Your task to perform on an android device: open app "Move to iOS" (install if not already installed) Image 0: 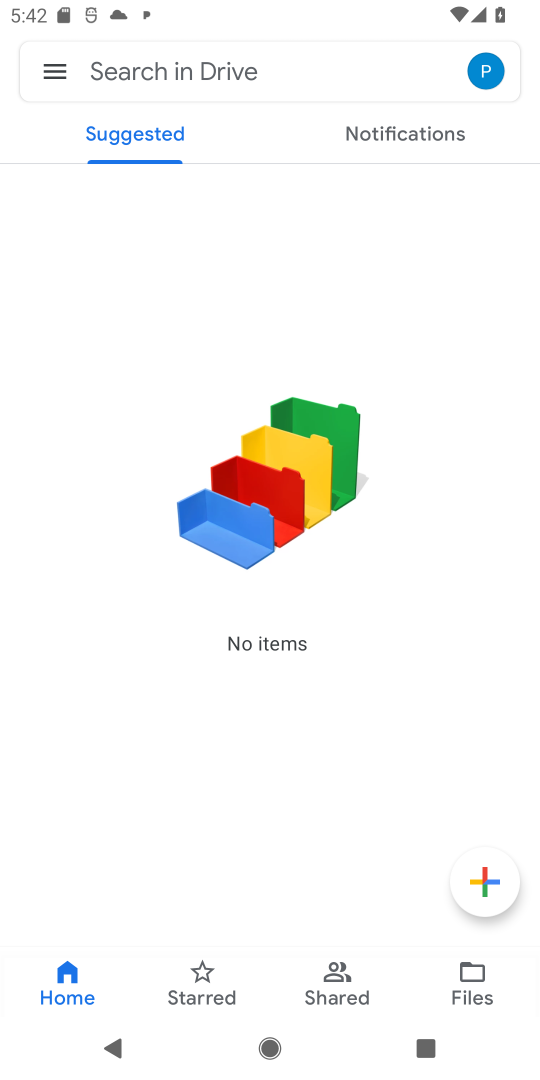
Step 0: press home button
Your task to perform on an android device: open app "Move to iOS" (install if not already installed) Image 1: 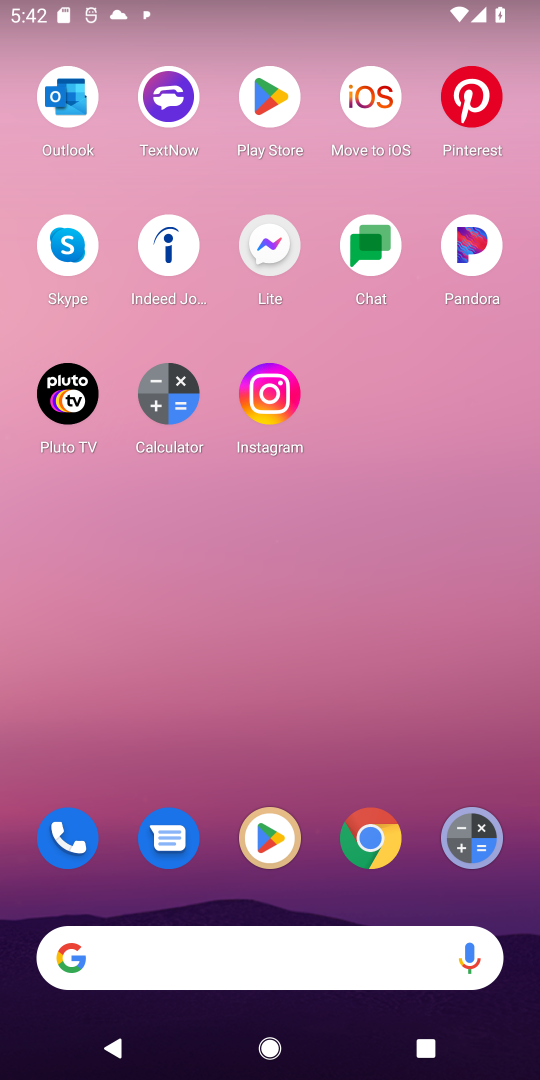
Step 1: click (260, 832)
Your task to perform on an android device: open app "Move to iOS" (install if not already installed) Image 2: 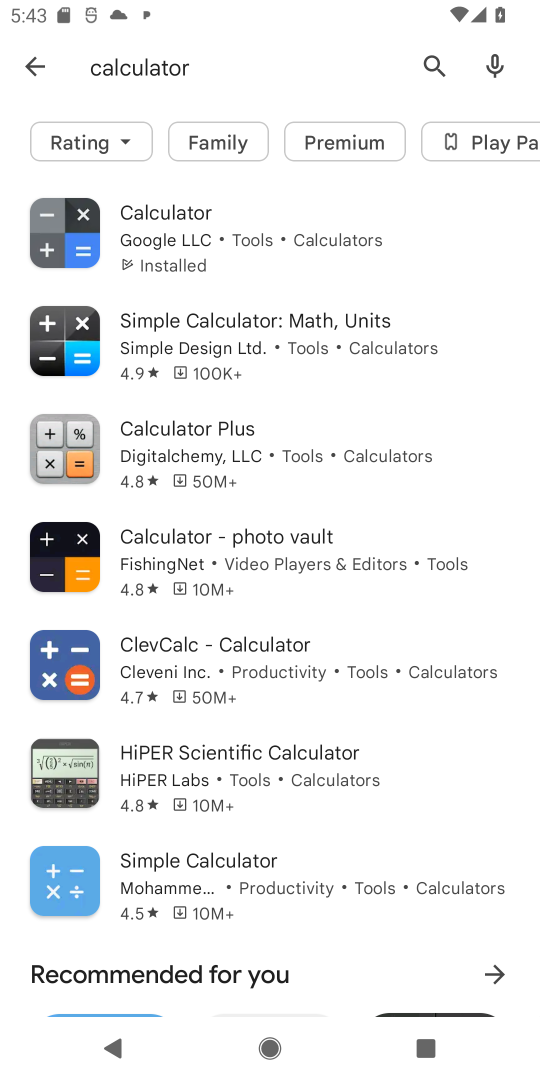
Step 2: click (434, 63)
Your task to perform on an android device: open app "Move to iOS" (install if not already installed) Image 3: 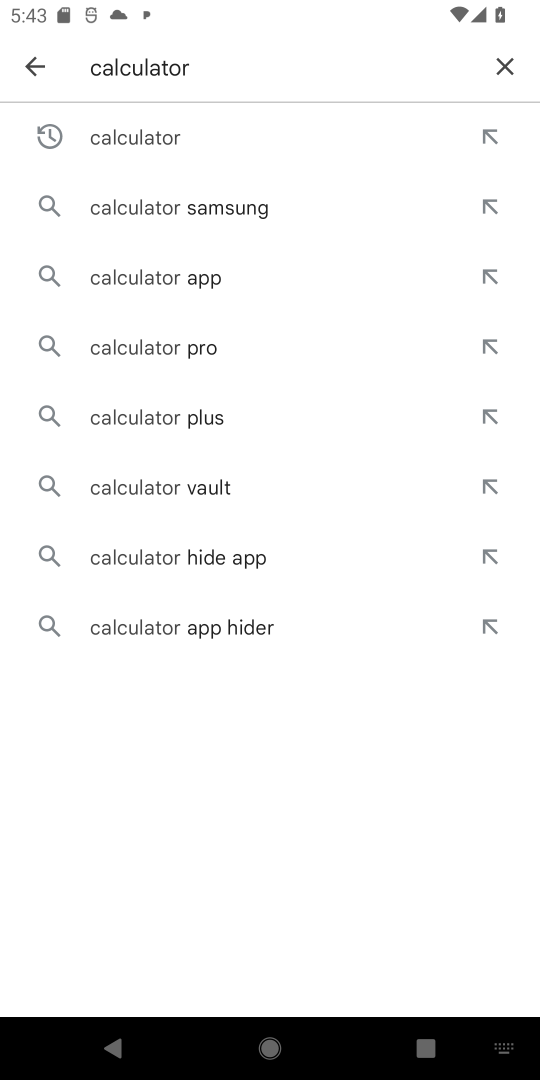
Step 3: click (508, 54)
Your task to perform on an android device: open app "Move to iOS" (install if not already installed) Image 4: 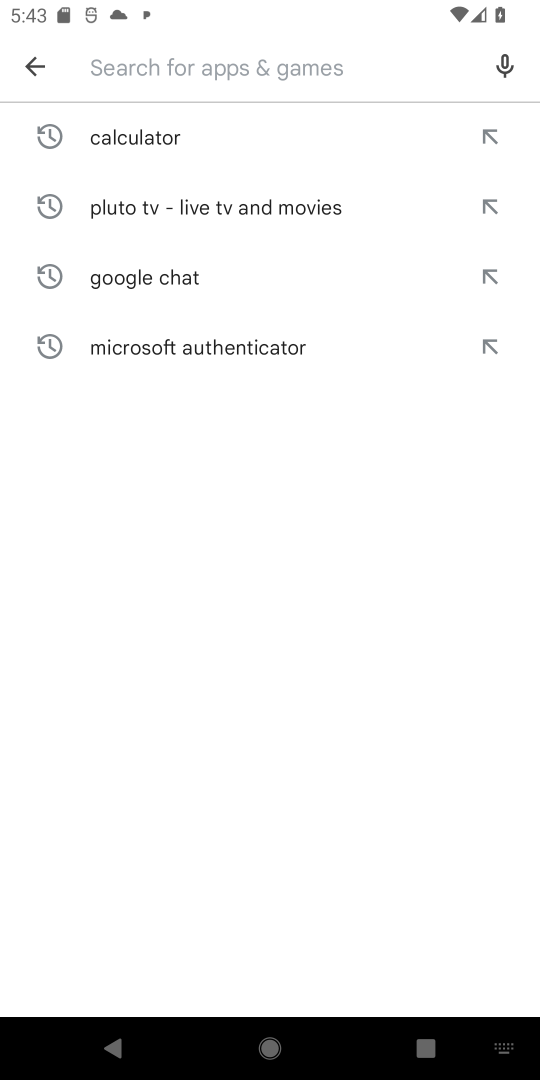
Step 4: type "Move to iOS"
Your task to perform on an android device: open app "Move to iOS" (install if not already installed) Image 5: 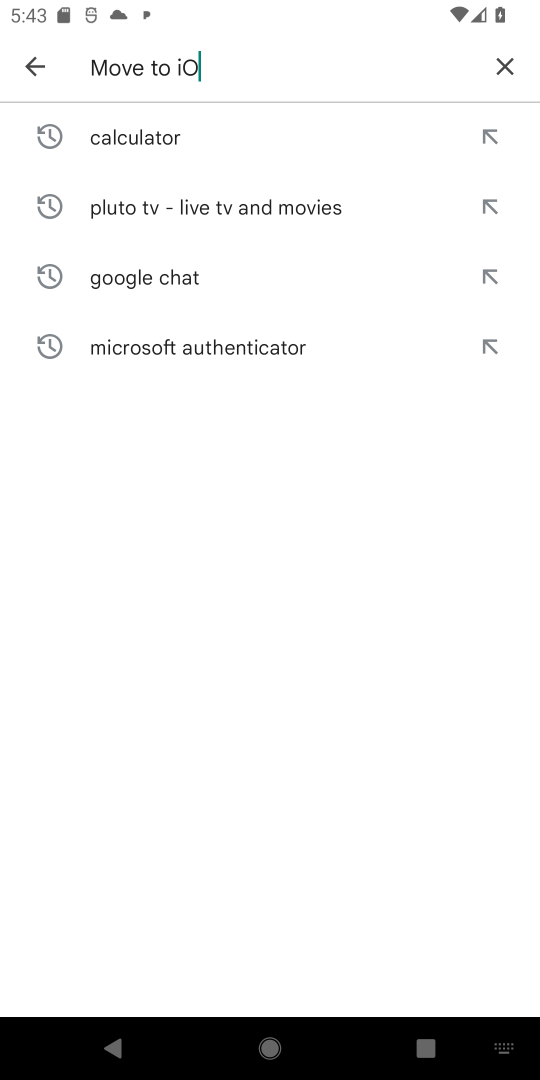
Step 5: type ""
Your task to perform on an android device: open app "Move to iOS" (install if not already installed) Image 6: 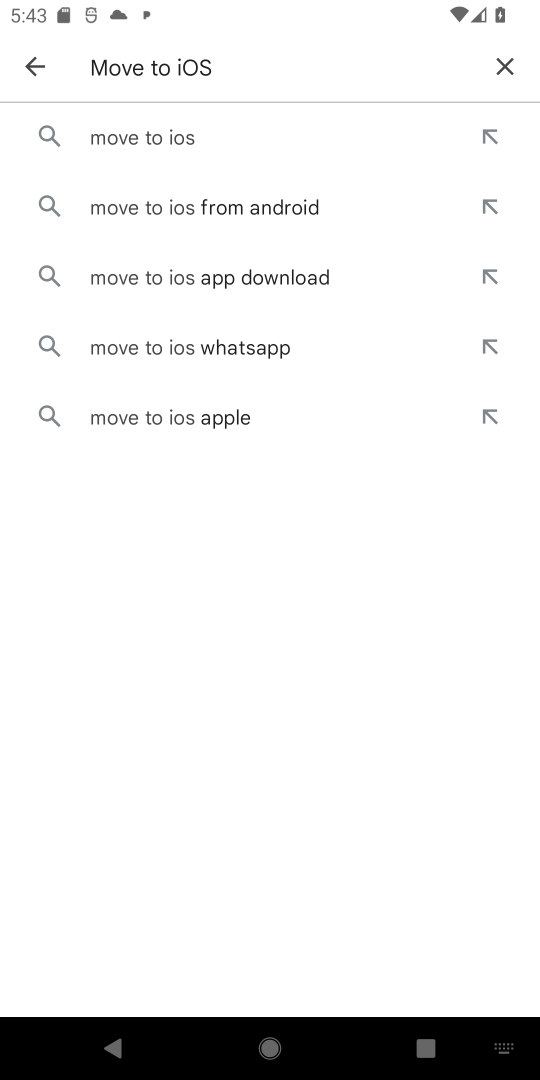
Step 6: click (131, 137)
Your task to perform on an android device: open app "Move to iOS" (install if not already installed) Image 7: 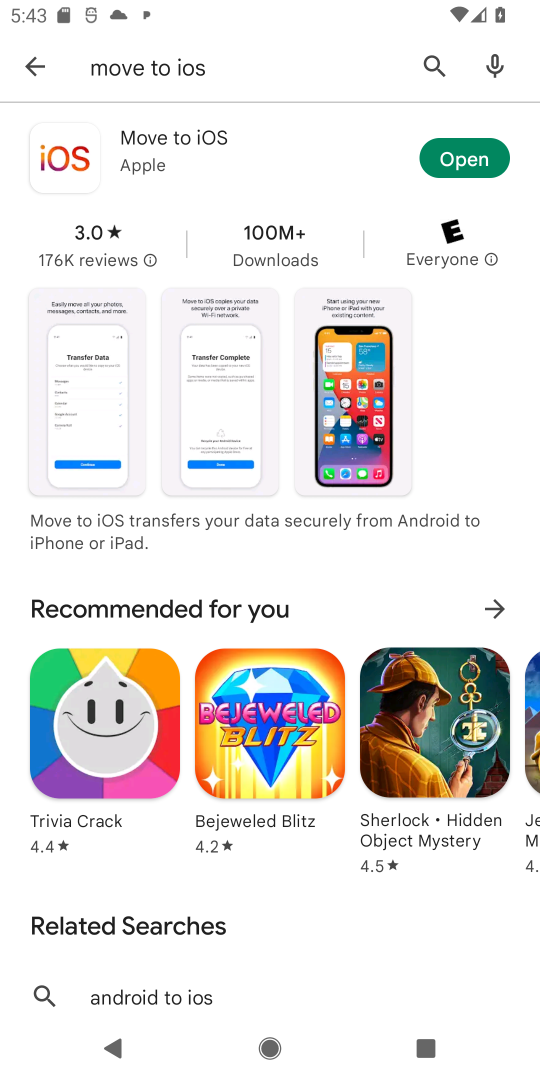
Step 7: click (455, 166)
Your task to perform on an android device: open app "Move to iOS" (install if not already installed) Image 8: 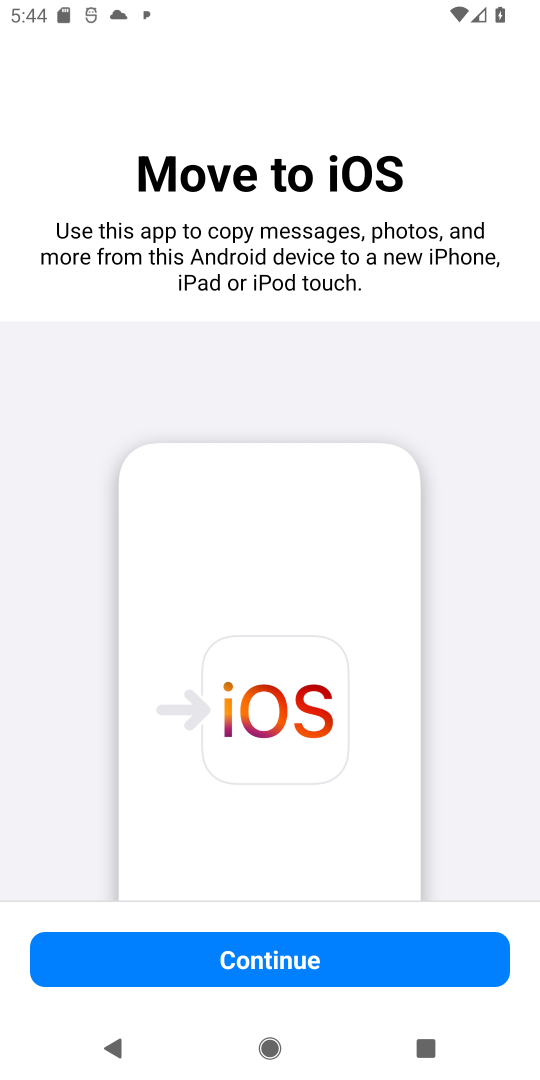
Step 8: task complete